Your task to perform on an android device: Open privacy settings Image 0: 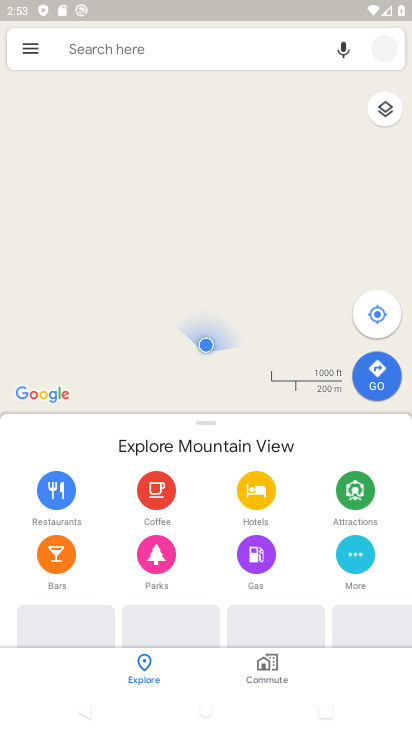
Step 0: press home button
Your task to perform on an android device: Open privacy settings Image 1: 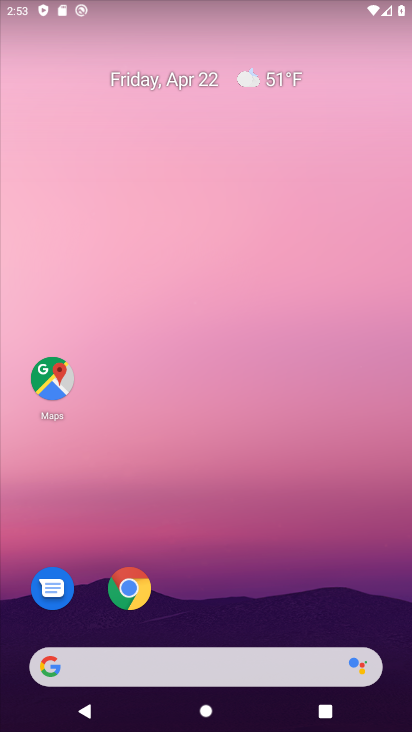
Step 1: drag from (343, 582) to (362, 158)
Your task to perform on an android device: Open privacy settings Image 2: 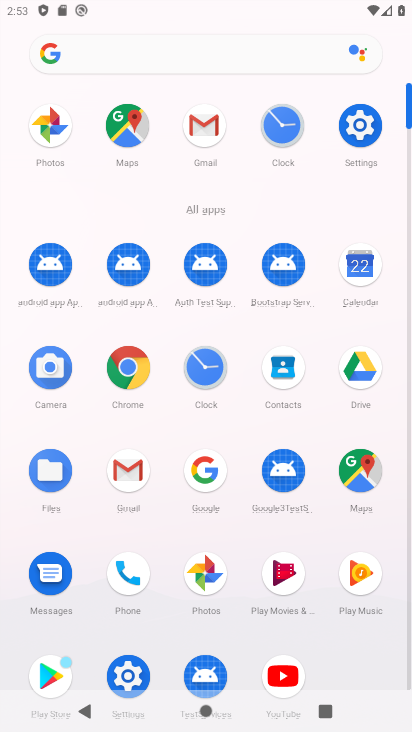
Step 2: click (367, 133)
Your task to perform on an android device: Open privacy settings Image 3: 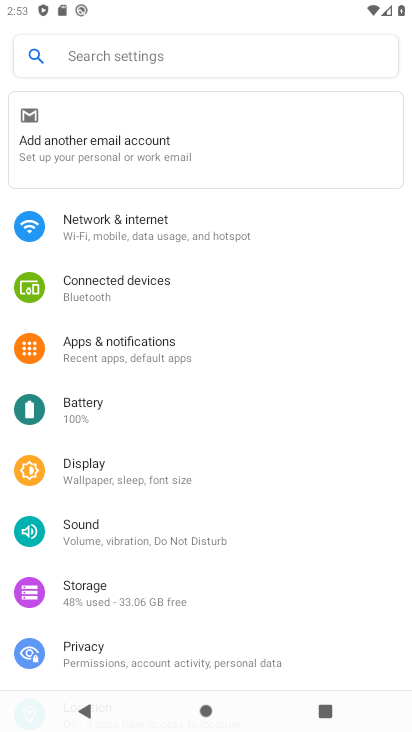
Step 3: drag from (367, 557) to (361, 382)
Your task to perform on an android device: Open privacy settings Image 4: 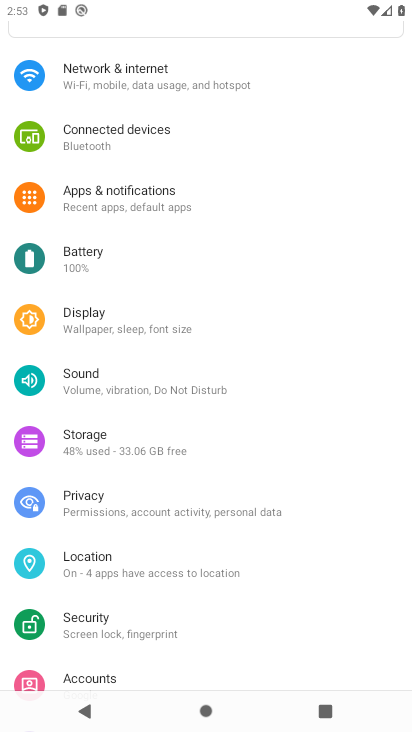
Step 4: drag from (343, 576) to (352, 415)
Your task to perform on an android device: Open privacy settings Image 5: 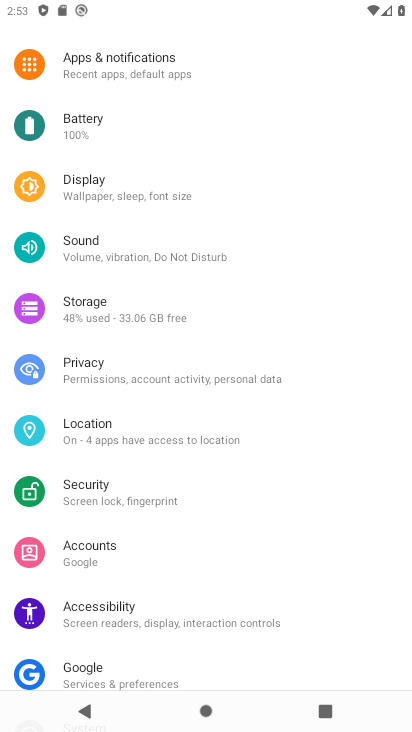
Step 5: drag from (355, 565) to (354, 398)
Your task to perform on an android device: Open privacy settings Image 6: 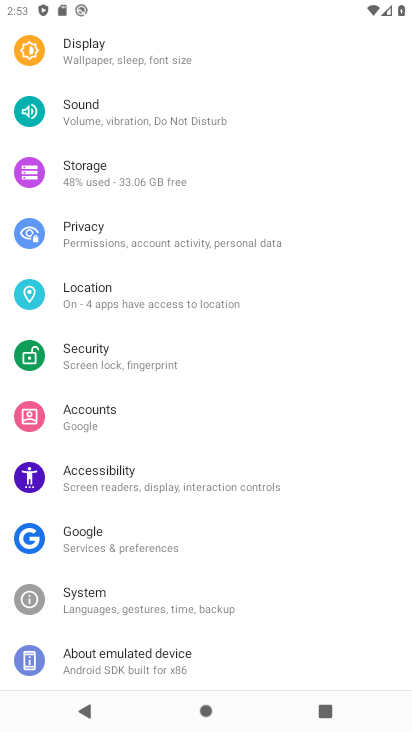
Step 6: drag from (348, 576) to (355, 398)
Your task to perform on an android device: Open privacy settings Image 7: 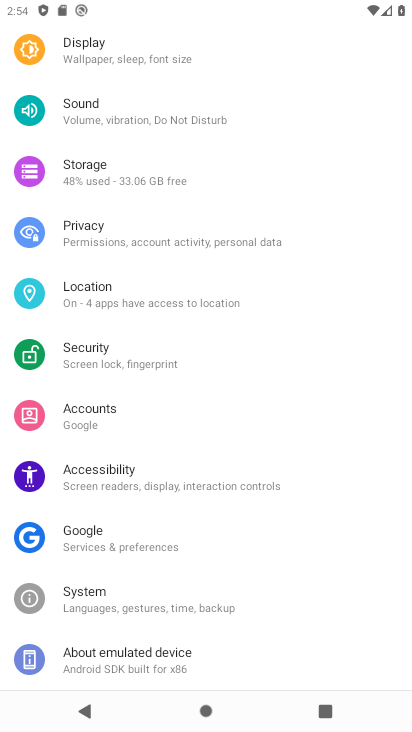
Step 7: drag from (356, 291) to (362, 431)
Your task to perform on an android device: Open privacy settings Image 8: 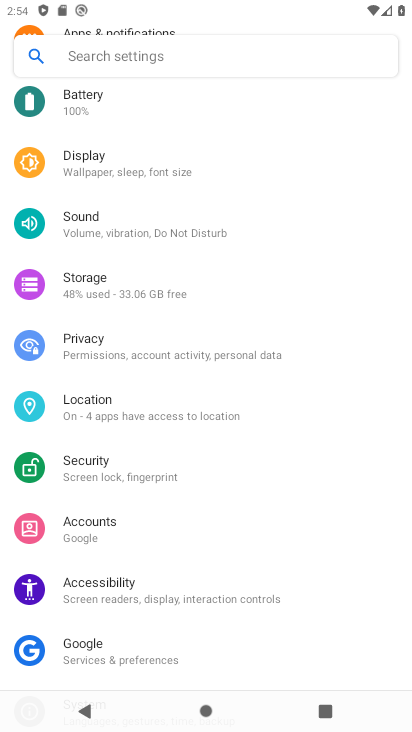
Step 8: drag from (351, 293) to (356, 400)
Your task to perform on an android device: Open privacy settings Image 9: 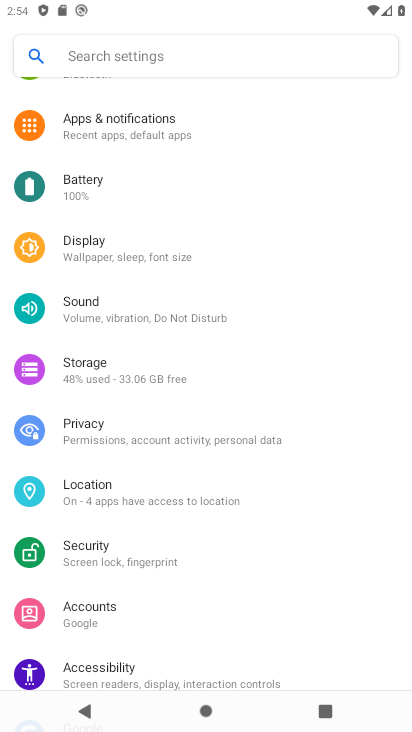
Step 9: drag from (348, 285) to (340, 430)
Your task to perform on an android device: Open privacy settings Image 10: 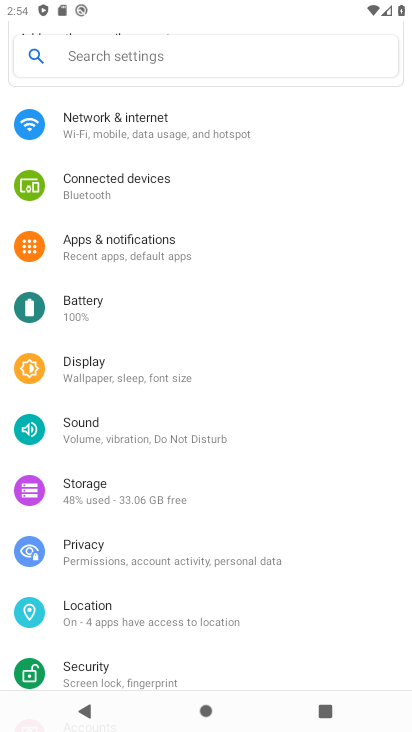
Step 10: drag from (334, 264) to (330, 404)
Your task to perform on an android device: Open privacy settings Image 11: 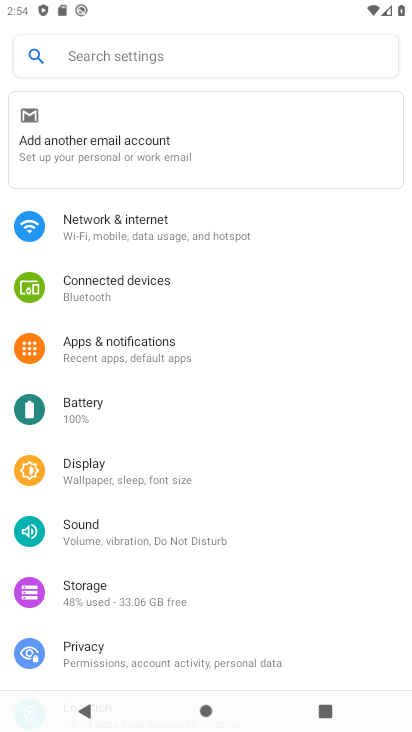
Step 11: drag from (338, 569) to (344, 454)
Your task to perform on an android device: Open privacy settings Image 12: 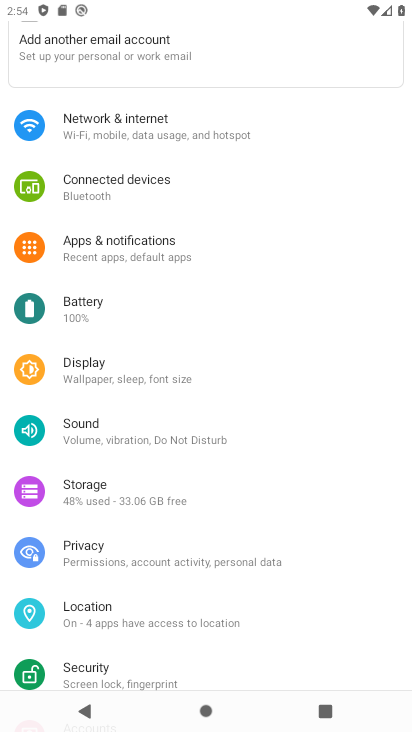
Step 12: drag from (324, 567) to (339, 426)
Your task to perform on an android device: Open privacy settings Image 13: 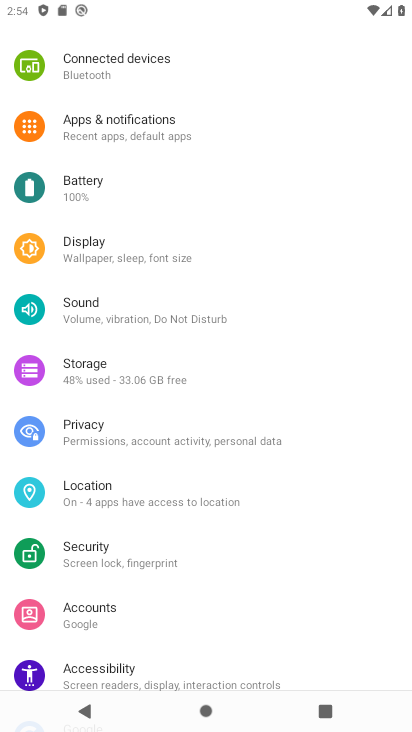
Step 13: click (280, 435)
Your task to perform on an android device: Open privacy settings Image 14: 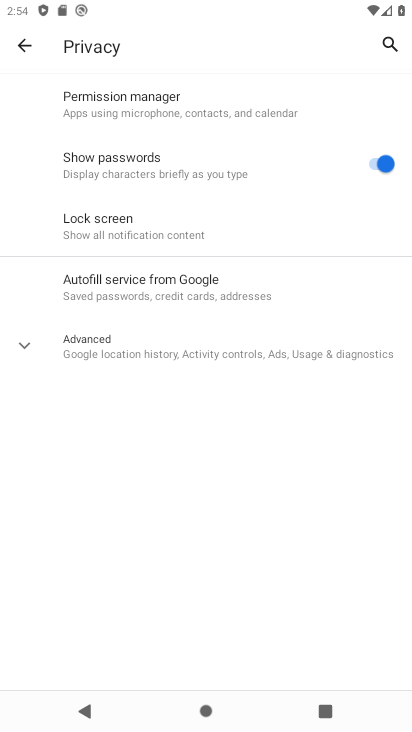
Step 14: task complete